Your task to perform on an android device: turn on notifications settings in the gmail app Image 0: 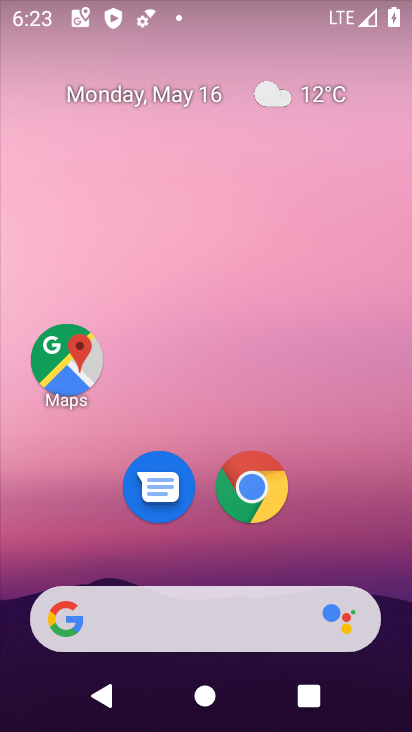
Step 0: drag from (401, 530) to (102, 80)
Your task to perform on an android device: turn on notifications settings in the gmail app Image 1: 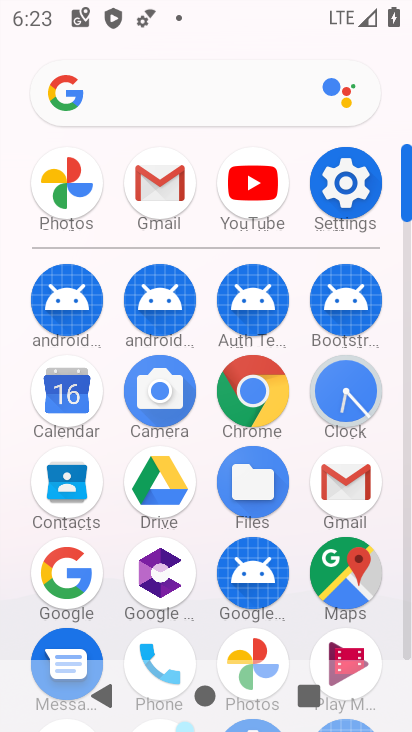
Step 1: click (342, 481)
Your task to perform on an android device: turn on notifications settings in the gmail app Image 2: 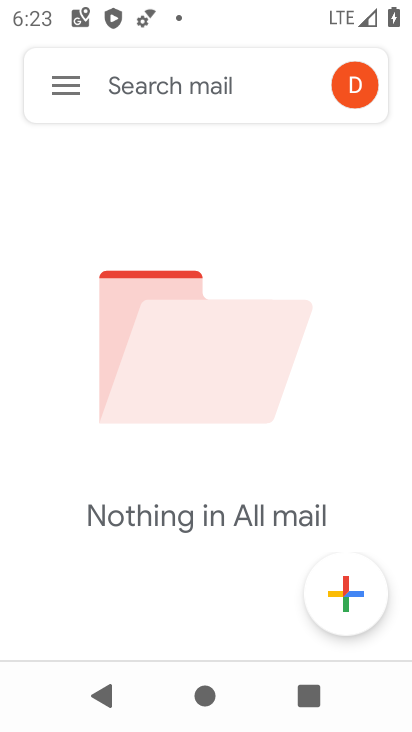
Step 2: click (69, 85)
Your task to perform on an android device: turn on notifications settings in the gmail app Image 3: 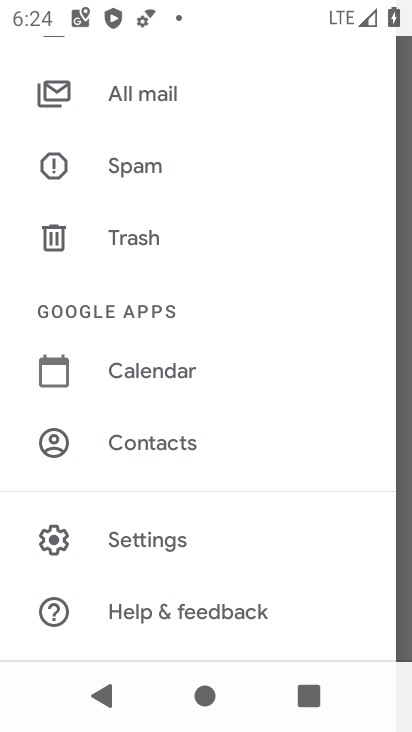
Step 3: click (174, 552)
Your task to perform on an android device: turn on notifications settings in the gmail app Image 4: 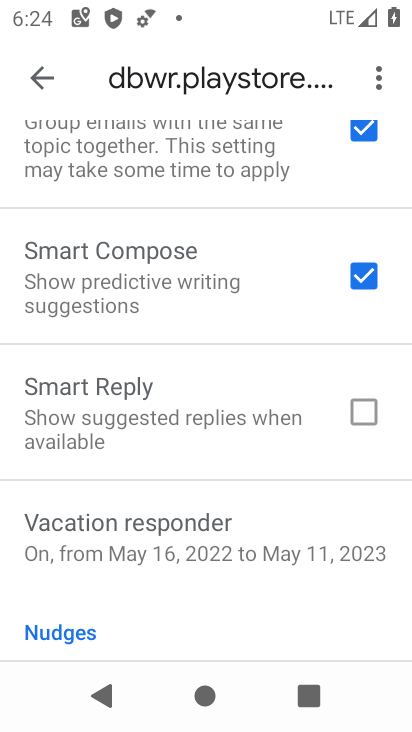
Step 4: drag from (168, 142) to (273, 633)
Your task to perform on an android device: turn on notifications settings in the gmail app Image 5: 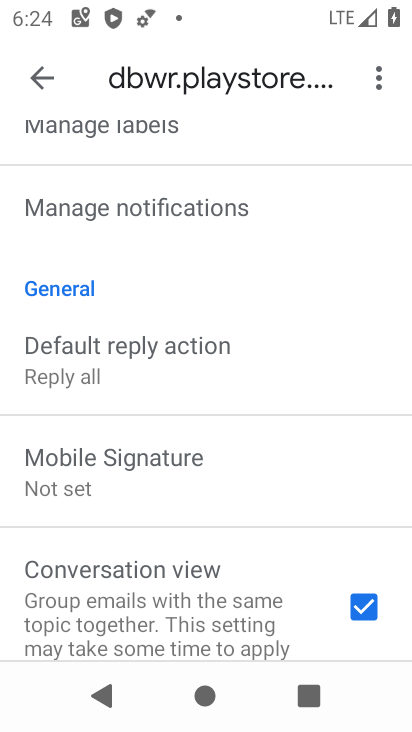
Step 5: click (180, 179)
Your task to perform on an android device: turn on notifications settings in the gmail app Image 6: 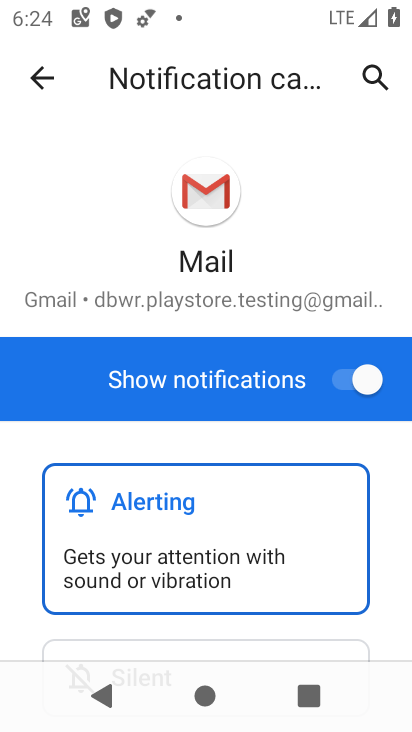
Step 6: task complete